Your task to perform on an android device: turn off smart reply in the gmail app Image 0: 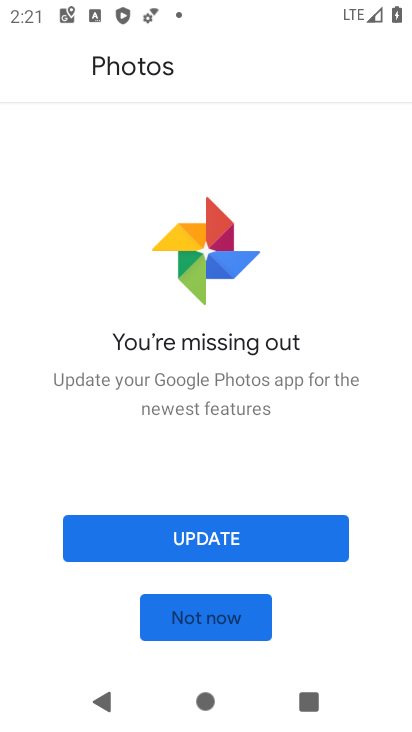
Step 0: press home button
Your task to perform on an android device: turn off smart reply in the gmail app Image 1: 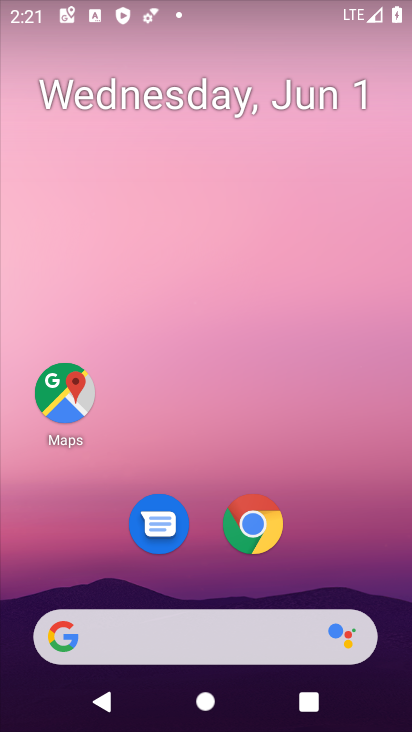
Step 1: drag from (324, 553) to (290, 39)
Your task to perform on an android device: turn off smart reply in the gmail app Image 2: 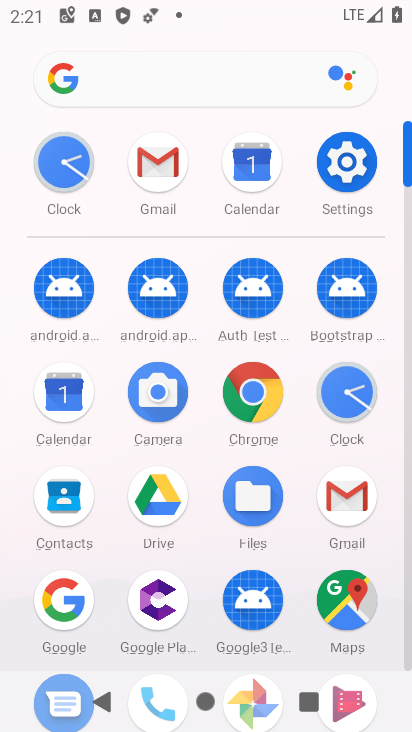
Step 2: click (168, 157)
Your task to perform on an android device: turn off smart reply in the gmail app Image 3: 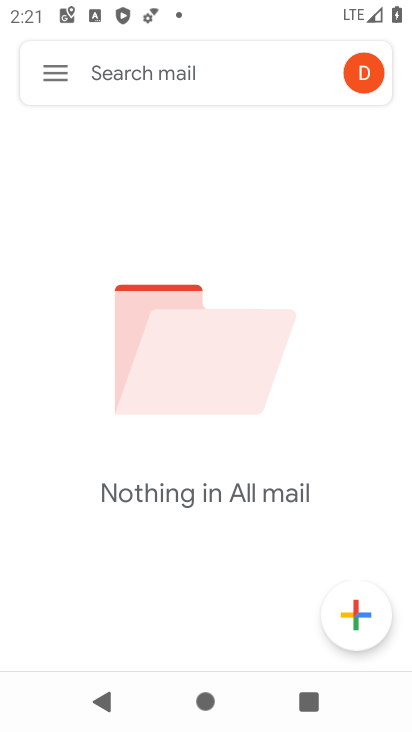
Step 3: click (55, 66)
Your task to perform on an android device: turn off smart reply in the gmail app Image 4: 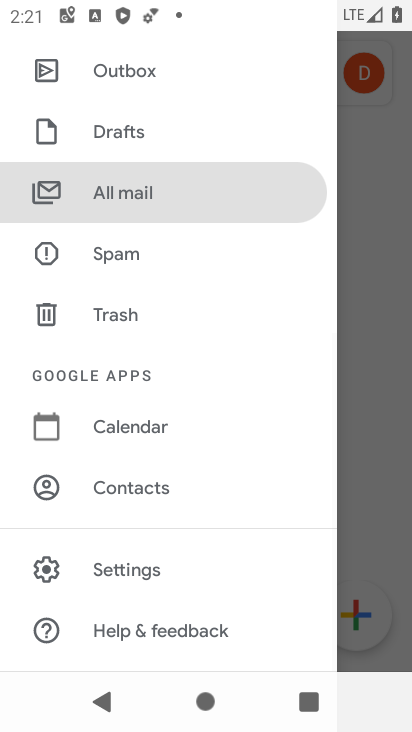
Step 4: click (157, 567)
Your task to perform on an android device: turn off smart reply in the gmail app Image 5: 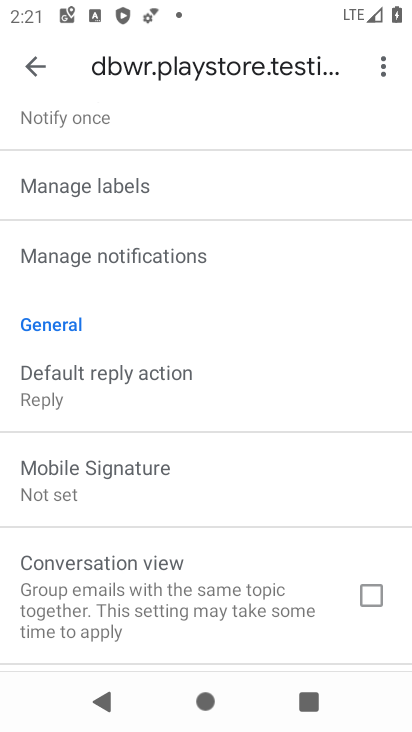
Step 5: drag from (231, 543) to (212, 76)
Your task to perform on an android device: turn off smart reply in the gmail app Image 6: 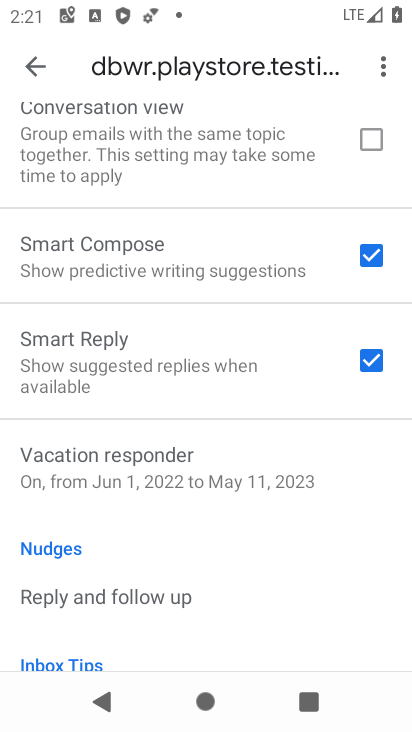
Step 6: click (368, 361)
Your task to perform on an android device: turn off smart reply in the gmail app Image 7: 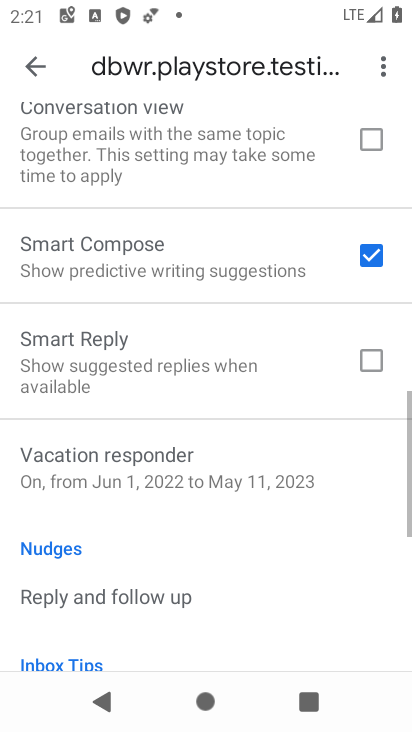
Step 7: task complete